Your task to perform on an android device: Search for "jbl flip 4" on walmart.com, select the first entry, add it to the cart, then select checkout. Image 0: 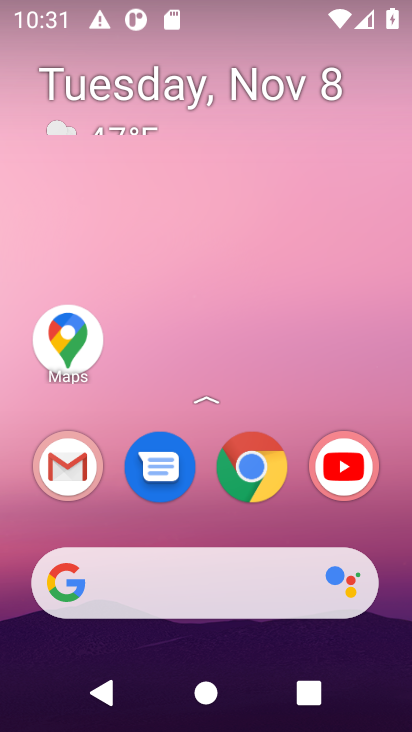
Step 0: click (261, 578)
Your task to perform on an android device: Search for "jbl flip 4" on walmart.com, select the first entry, add it to the cart, then select checkout. Image 1: 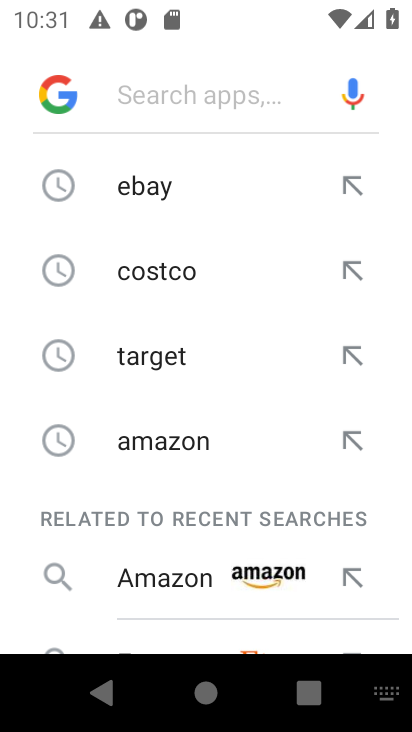
Step 1: type "walmart"
Your task to perform on an android device: Search for "jbl flip 4" on walmart.com, select the first entry, add it to the cart, then select checkout. Image 2: 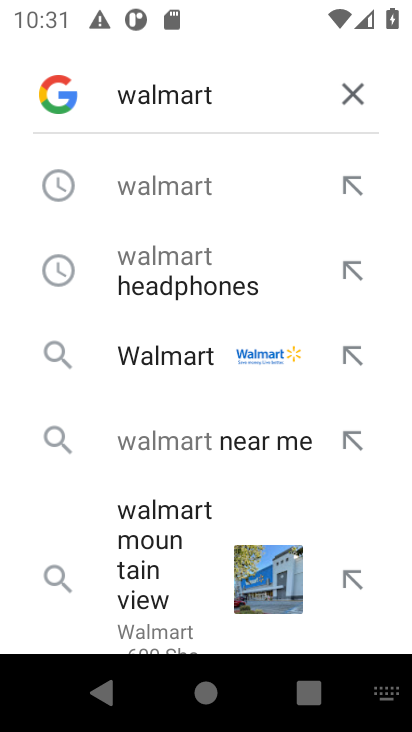
Step 2: click (248, 207)
Your task to perform on an android device: Search for "jbl flip 4" on walmart.com, select the first entry, add it to the cart, then select checkout. Image 3: 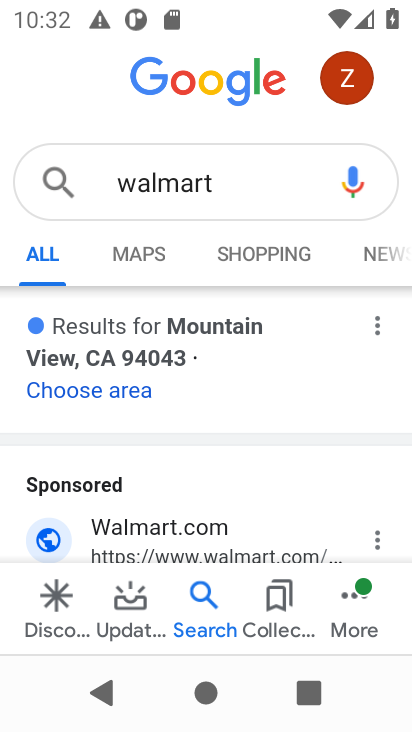
Step 3: click (103, 572)
Your task to perform on an android device: Search for "jbl flip 4" on walmart.com, select the first entry, add it to the cart, then select checkout. Image 4: 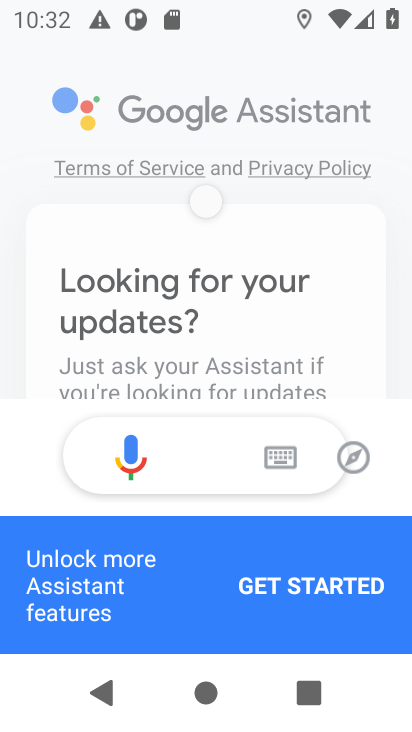
Step 4: click (120, 559)
Your task to perform on an android device: Search for "jbl flip 4" on walmart.com, select the first entry, add it to the cart, then select checkout. Image 5: 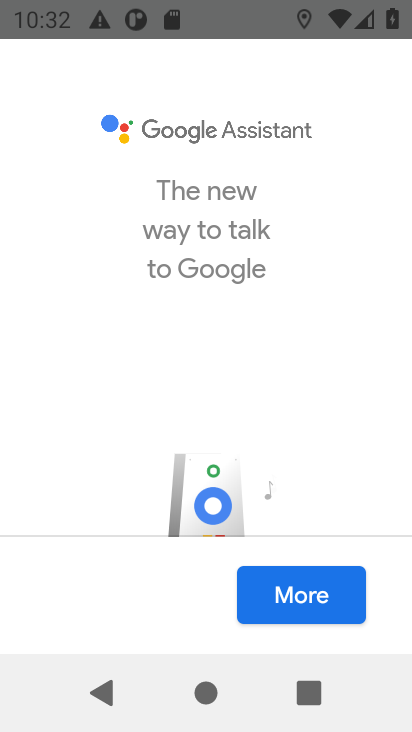
Step 5: task complete